Your task to perform on an android device: Go to location settings Image 0: 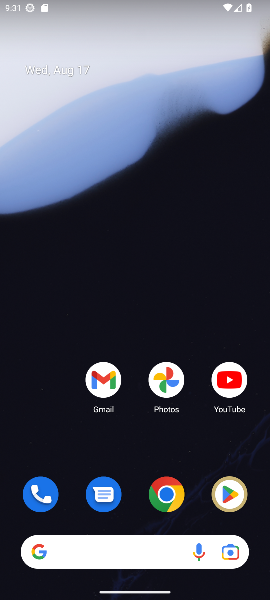
Step 0: drag from (122, 449) to (181, 44)
Your task to perform on an android device: Go to location settings Image 1: 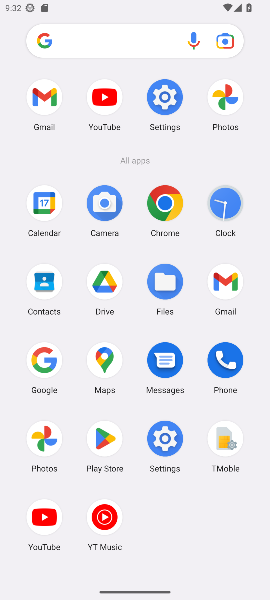
Step 1: click (165, 439)
Your task to perform on an android device: Go to location settings Image 2: 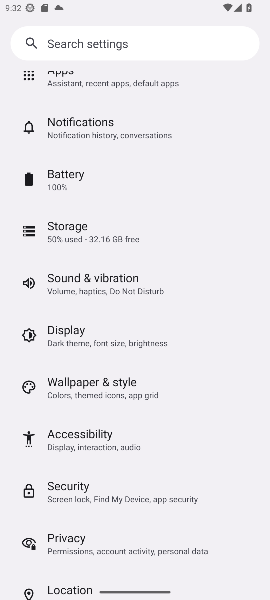
Step 2: drag from (125, 477) to (148, 132)
Your task to perform on an android device: Go to location settings Image 3: 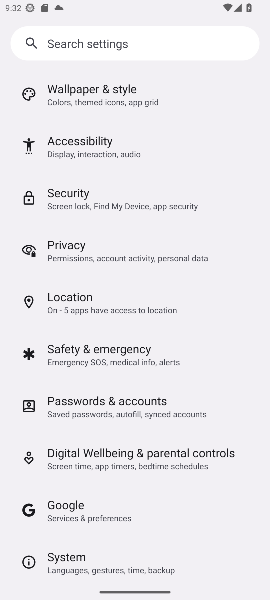
Step 3: click (85, 296)
Your task to perform on an android device: Go to location settings Image 4: 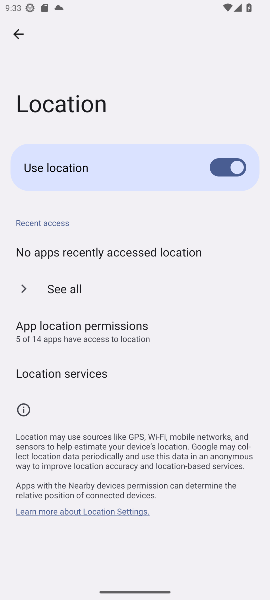
Step 4: task complete